Your task to perform on an android device: add a contact Image 0: 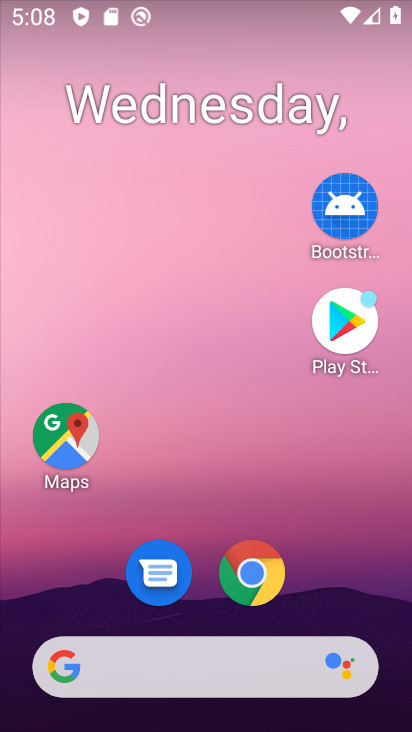
Step 0: drag from (346, 557) to (118, 48)
Your task to perform on an android device: add a contact Image 1: 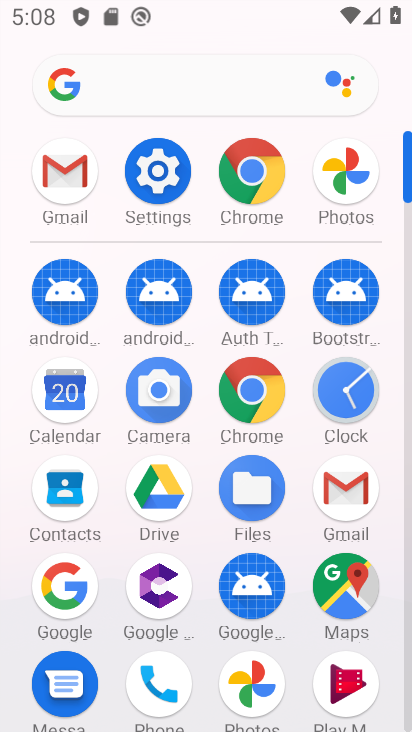
Step 1: click (60, 490)
Your task to perform on an android device: add a contact Image 2: 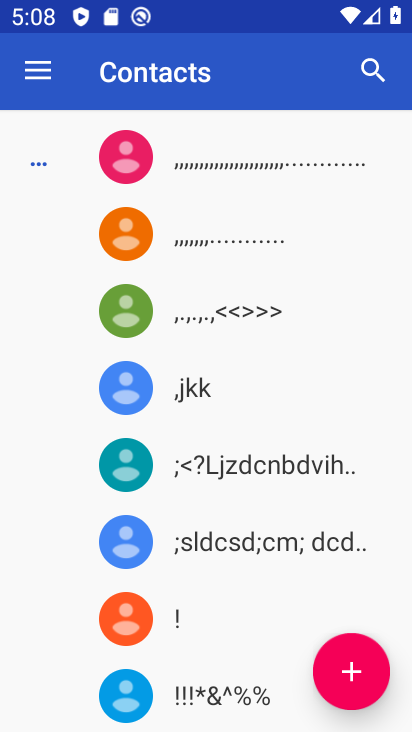
Step 2: click (356, 668)
Your task to perform on an android device: add a contact Image 3: 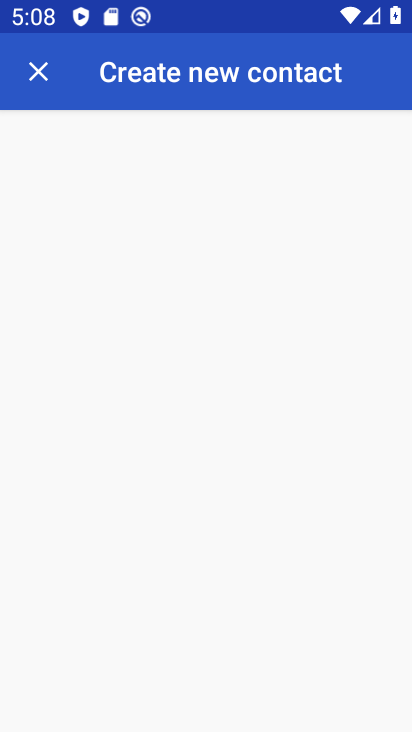
Step 3: click (189, 106)
Your task to perform on an android device: add a contact Image 4: 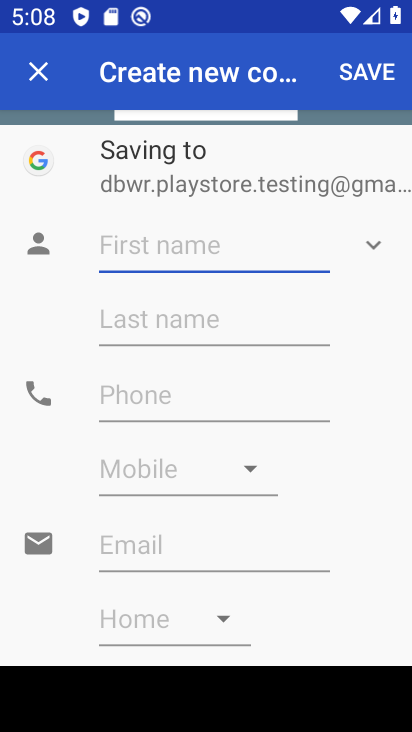
Step 4: type "dfb"
Your task to perform on an android device: add a contact Image 5: 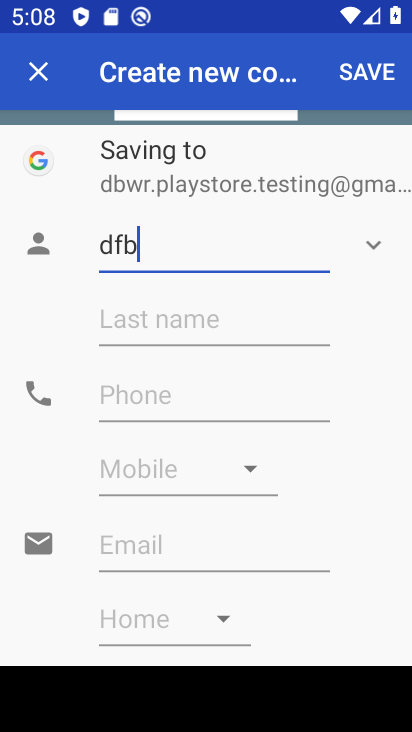
Step 5: click (233, 400)
Your task to perform on an android device: add a contact Image 6: 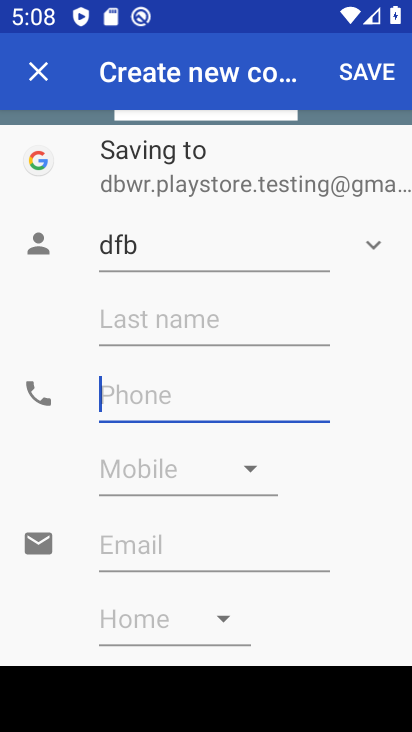
Step 6: click (236, 400)
Your task to perform on an android device: add a contact Image 7: 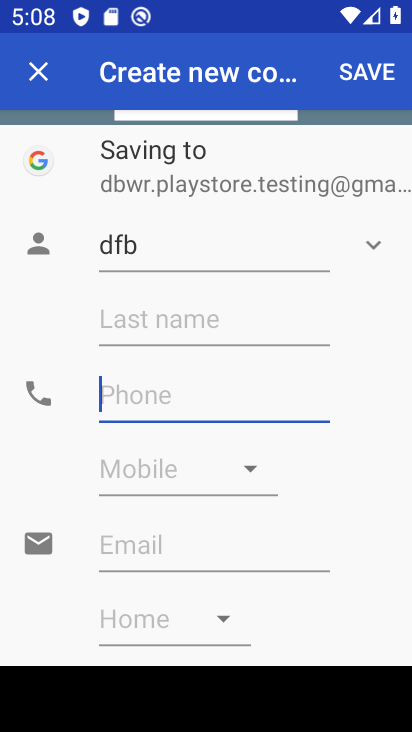
Step 7: type "12"
Your task to perform on an android device: add a contact Image 8: 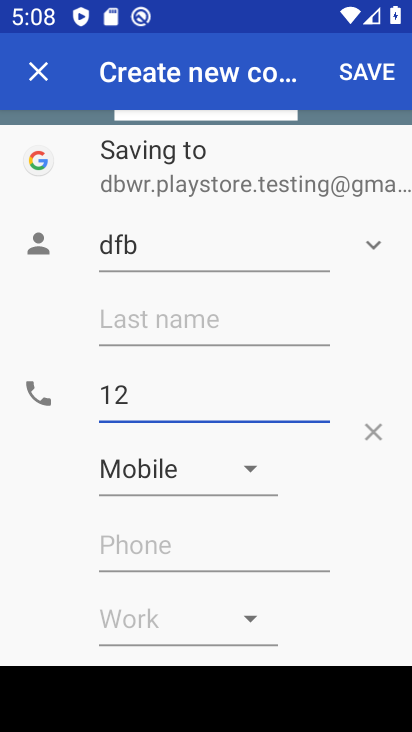
Step 8: click (377, 77)
Your task to perform on an android device: add a contact Image 9: 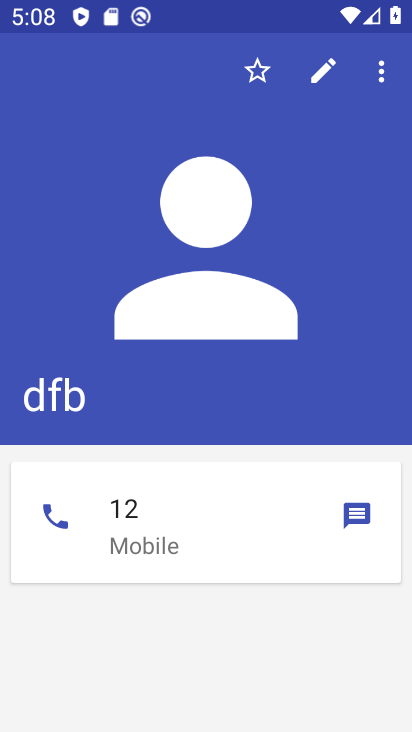
Step 9: task complete